Your task to perform on an android device: Go to display settings Image 0: 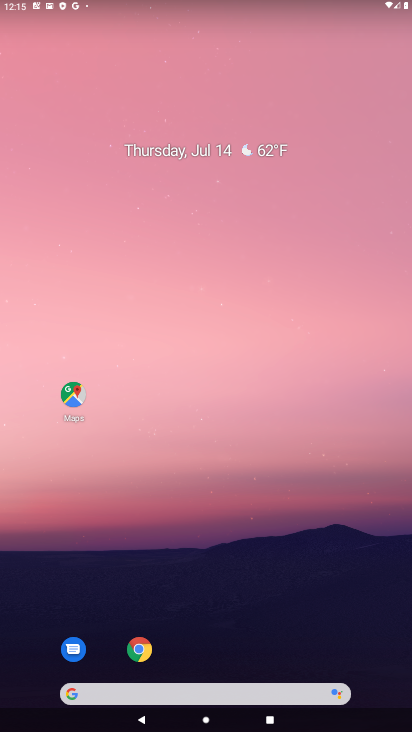
Step 0: drag from (359, 667) to (193, 67)
Your task to perform on an android device: Go to display settings Image 1: 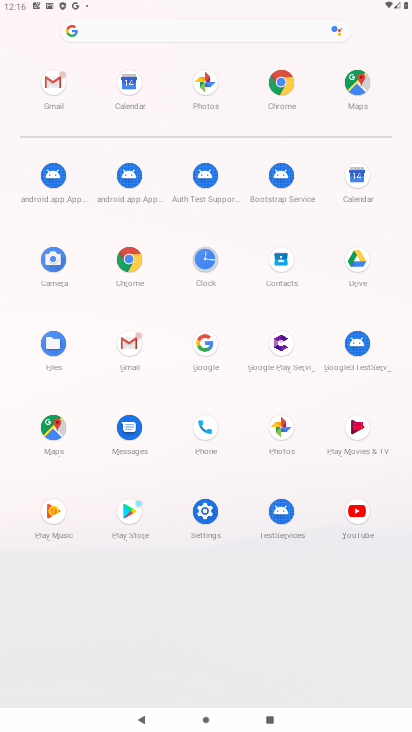
Step 1: click (195, 510)
Your task to perform on an android device: Go to display settings Image 2: 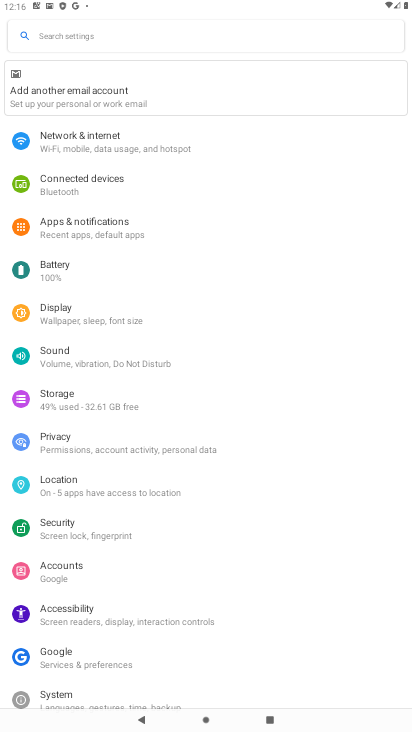
Step 2: click (118, 309)
Your task to perform on an android device: Go to display settings Image 3: 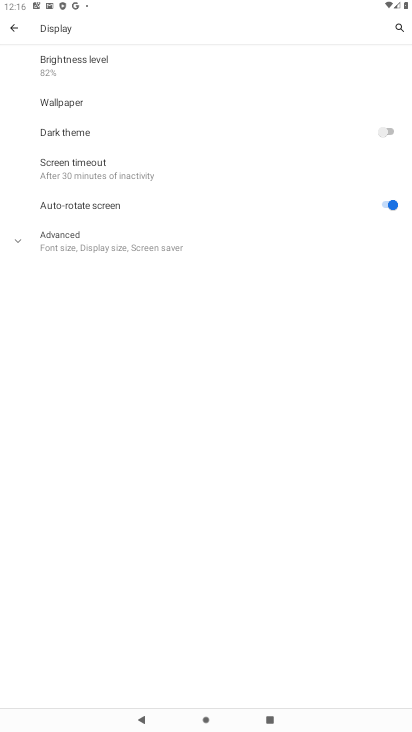
Step 3: task complete